Your task to perform on an android device: turn off airplane mode Image 0: 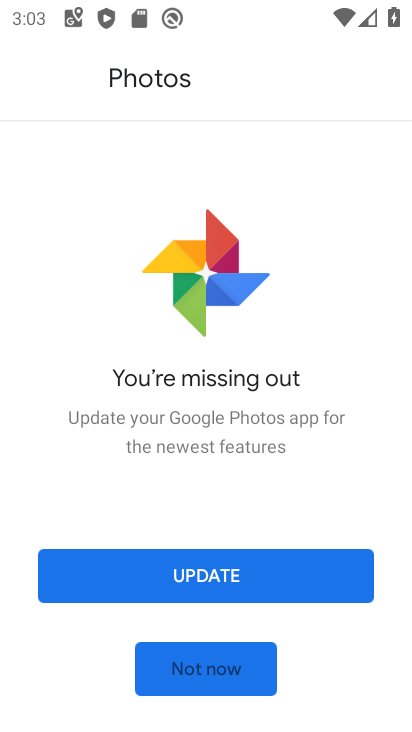
Step 0: press home button
Your task to perform on an android device: turn off airplane mode Image 1: 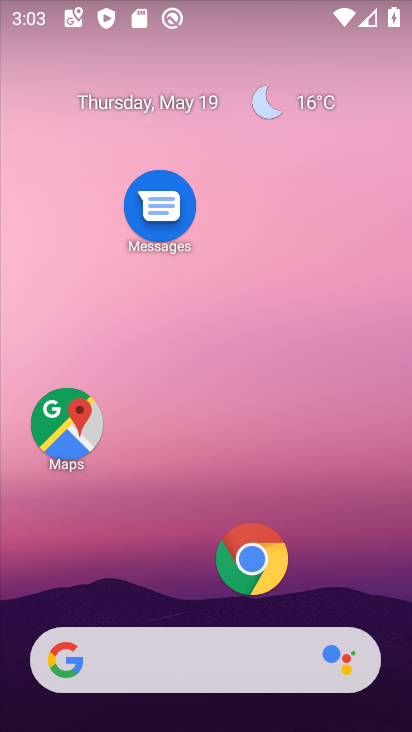
Step 1: drag from (188, 600) to (191, 238)
Your task to perform on an android device: turn off airplane mode Image 2: 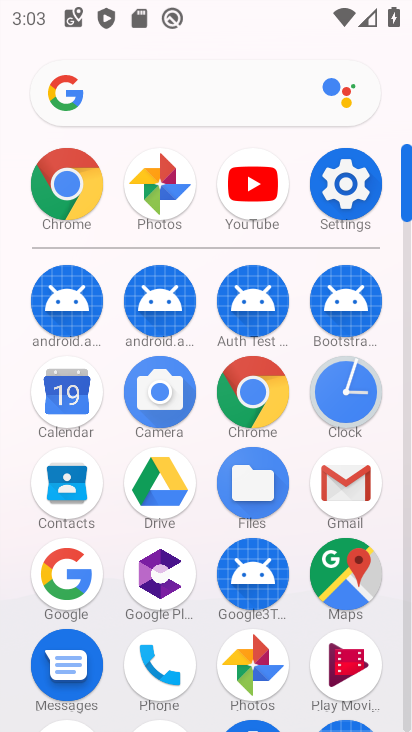
Step 2: click (320, 199)
Your task to perform on an android device: turn off airplane mode Image 3: 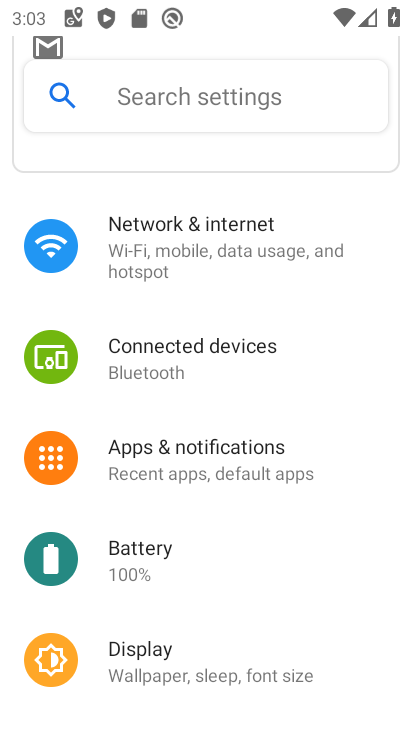
Step 3: click (214, 255)
Your task to perform on an android device: turn off airplane mode Image 4: 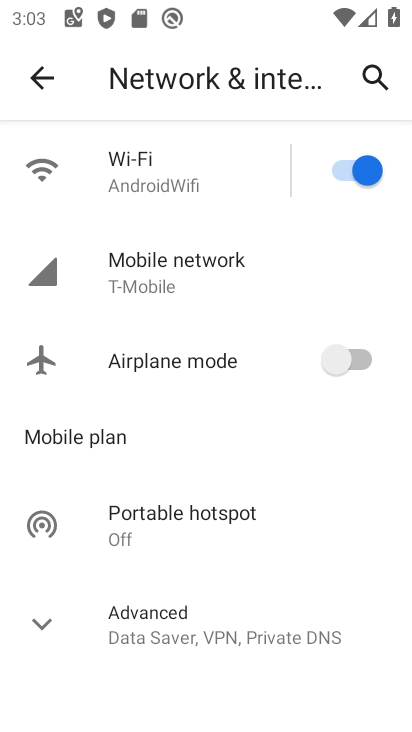
Step 4: task complete